Your task to perform on an android device: open a bookmark in the chrome app Image 0: 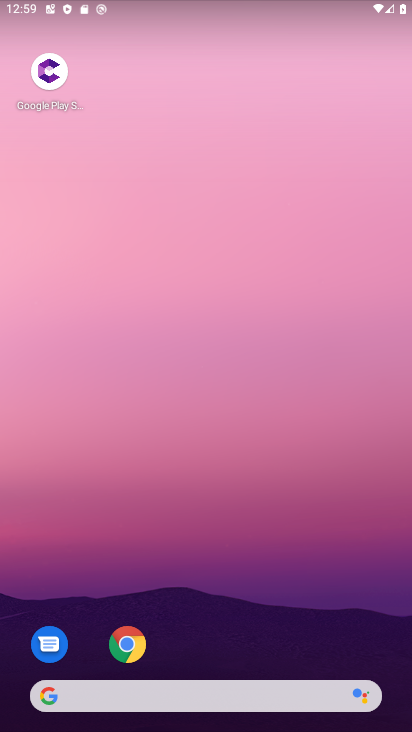
Step 0: click (123, 645)
Your task to perform on an android device: open a bookmark in the chrome app Image 1: 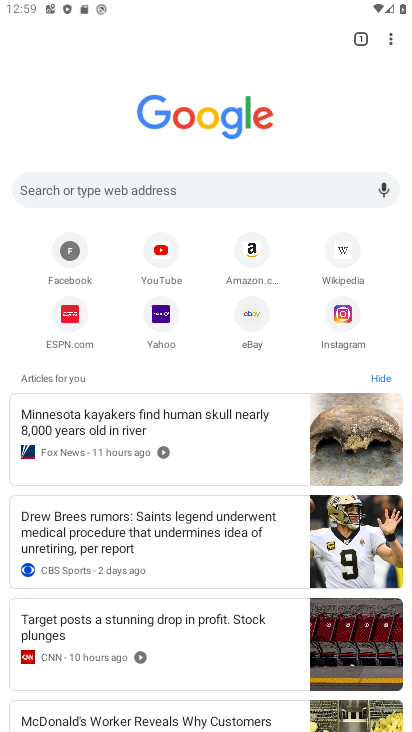
Step 1: click (385, 36)
Your task to perform on an android device: open a bookmark in the chrome app Image 2: 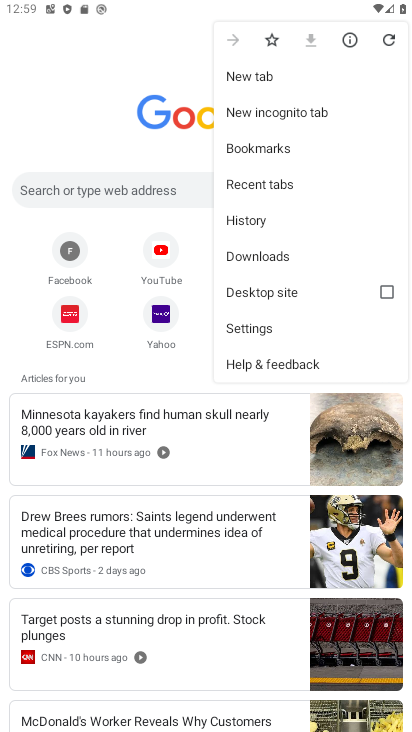
Step 2: click (263, 150)
Your task to perform on an android device: open a bookmark in the chrome app Image 3: 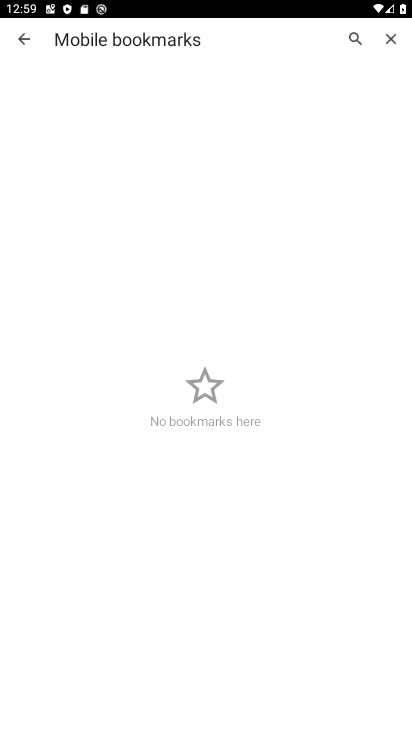
Step 3: task complete